Your task to perform on an android device: Show me the alarms in the clock app Image 0: 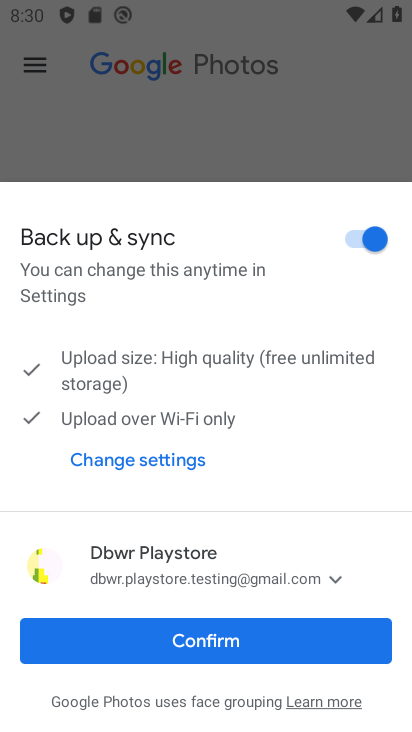
Step 0: press home button
Your task to perform on an android device: Show me the alarms in the clock app Image 1: 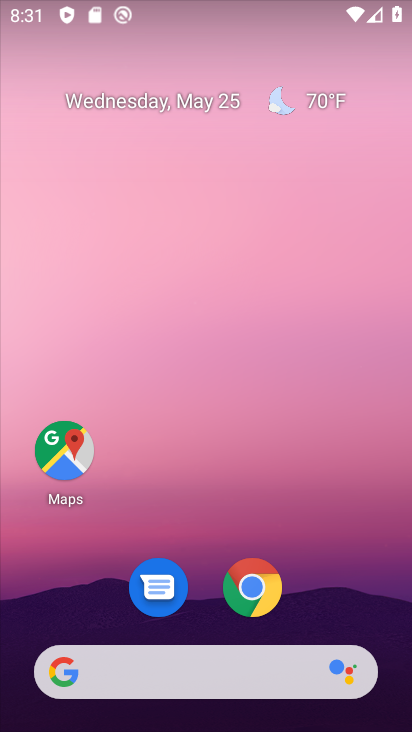
Step 1: drag from (208, 596) to (236, 97)
Your task to perform on an android device: Show me the alarms in the clock app Image 2: 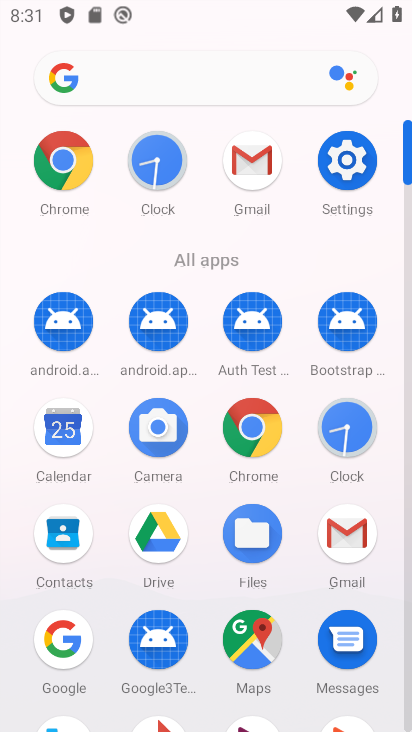
Step 2: click (352, 431)
Your task to perform on an android device: Show me the alarms in the clock app Image 3: 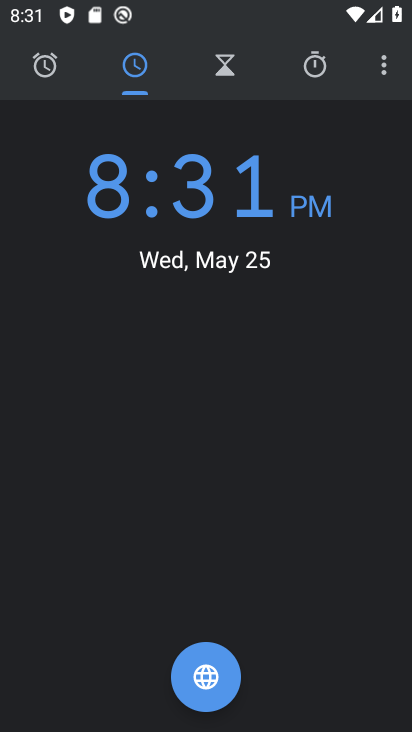
Step 3: click (60, 68)
Your task to perform on an android device: Show me the alarms in the clock app Image 4: 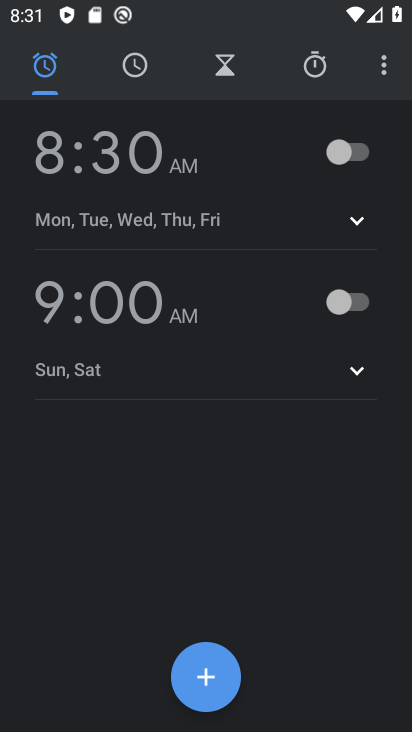
Step 4: task complete